Your task to perform on an android device: open app "Pinterest" (install if not already installed) Image 0: 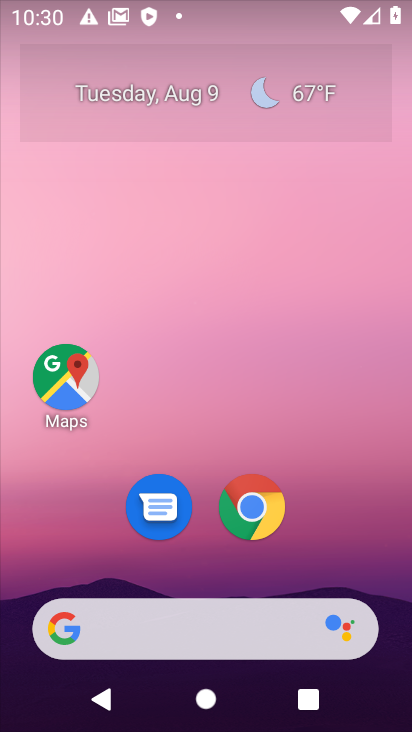
Step 0: drag from (317, 585) to (235, 0)
Your task to perform on an android device: open app "Pinterest" (install if not already installed) Image 1: 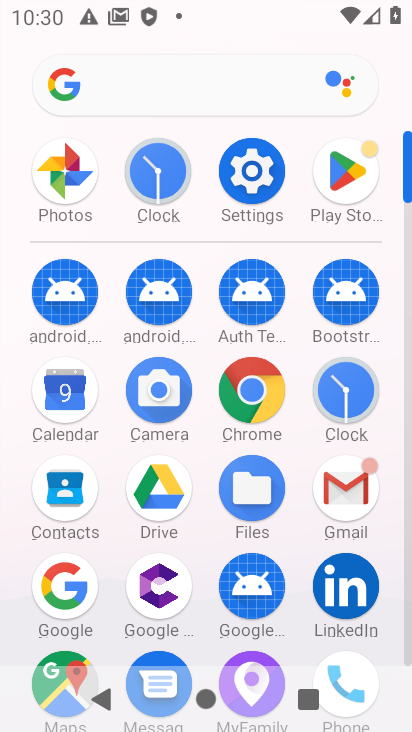
Step 1: click (338, 183)
Your task to perform on an android device: open app "Pinterest" (install if not already installed) Image 2: 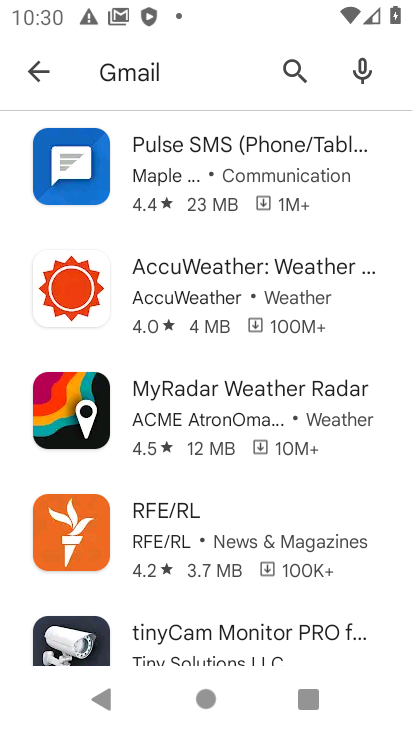
Step 2: click (287, 66)
Your task to perform on an android device: open app "Pinterest" (install if not already installed) Image 3: 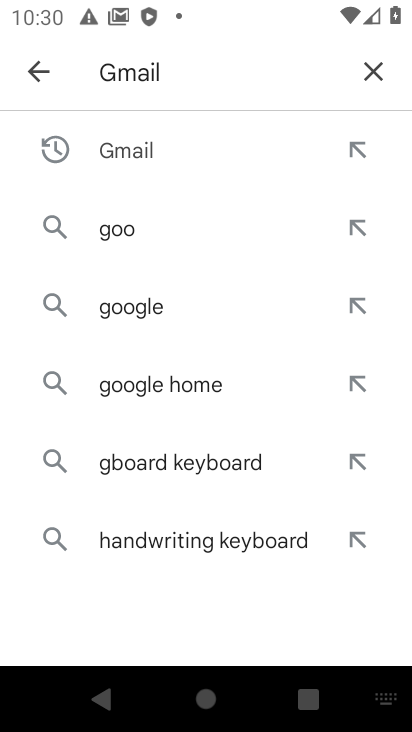
Step 3: click (374, 74)
Your task to perform on an android device: open app "Pinterest" (install if not already installed) Image 4: 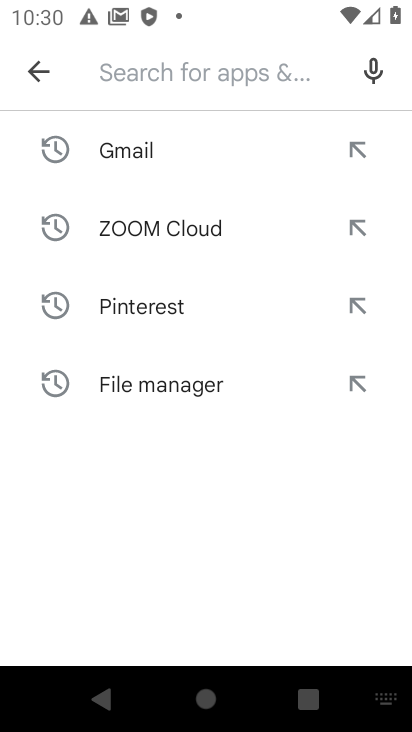
Step 4: click (108, 319)
Your task to perform on an android device: open app "Pinterest" (install if not already installed) Image 5: 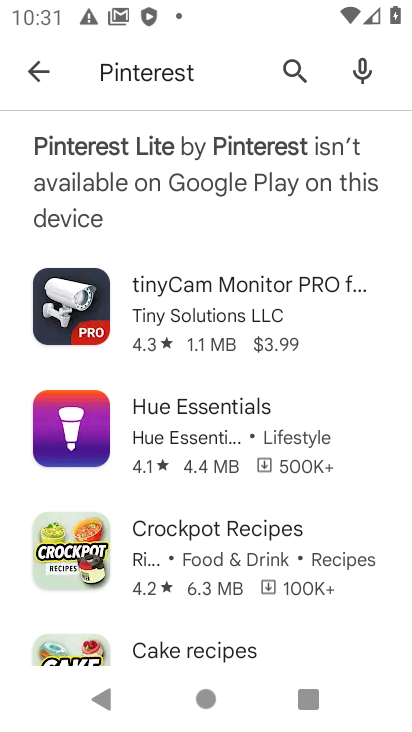
Step 5: task complete